Your task to perform on an android device: turn off notifications settings in the gmail app Image 0: 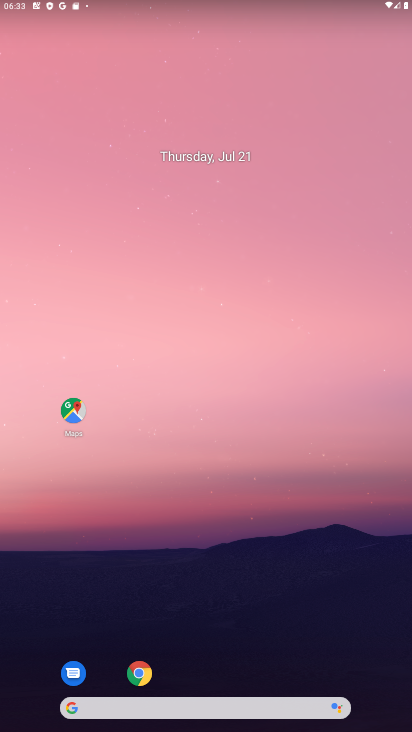
Step 0: drag from (182, 365) to (210, 33)
Your task to perform on an android device: turn off notifications settings in the gmail app Image 1: 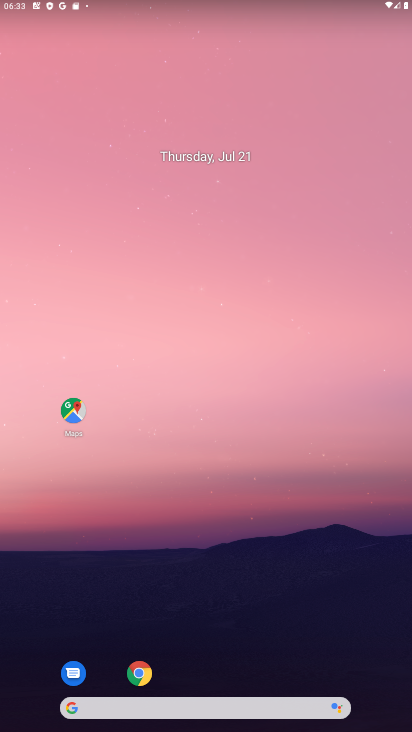
Step 1: drag from (203, 406) to (224, 28)
Your task to perform on an android device: turn off notifications settings in the gmail app Image 2: 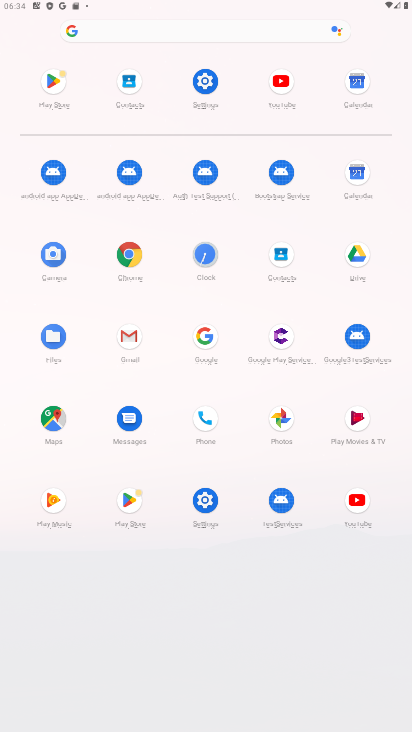
Step 2: click (126, 337)
Your task to perform on an android device: turn off notifications settings in the gmail app Image 3: 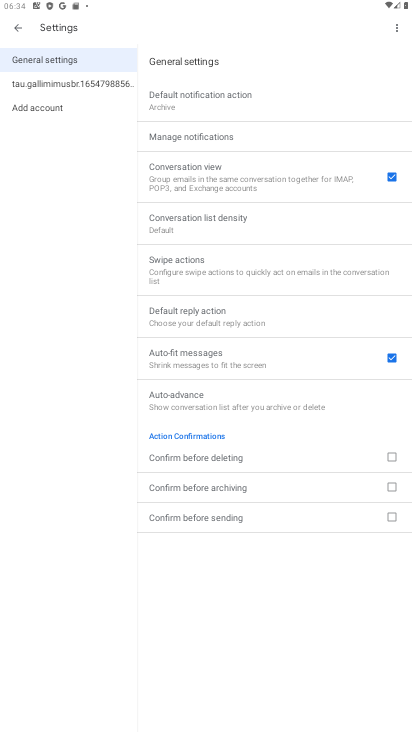
Step 3: click (88, 77)
Your task to perform on an android device: turn off notifications settings in the gmail app Image 4: 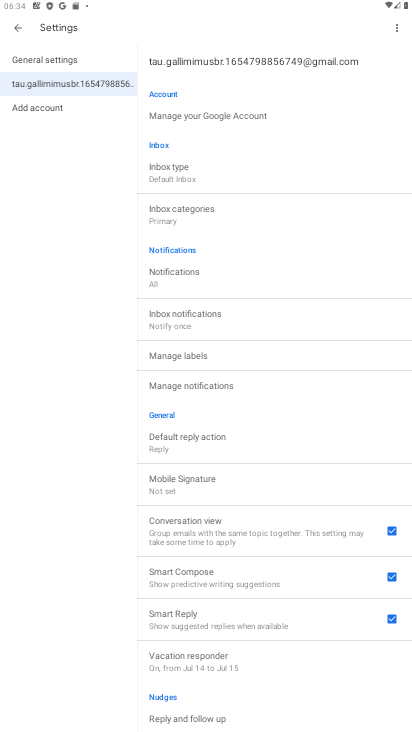
Step 4: click (199, 383)
Your task to perform on an android device: turn off notifications settings in the gmail app Image 5: 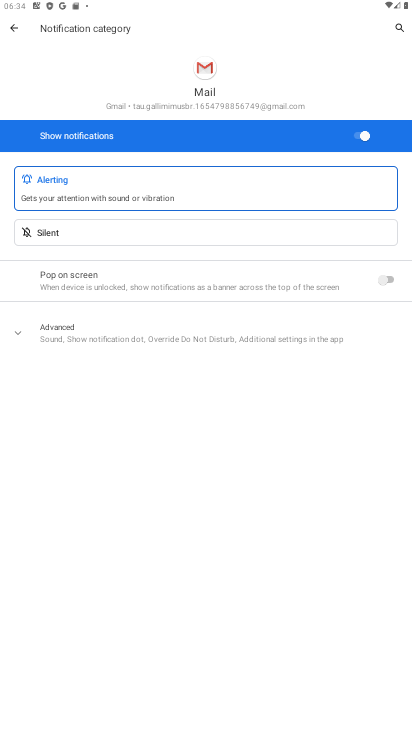
Step 5: click (355, 143)
Your task to perform on an android device: turn off notifications settings in the gmail app Image 6: 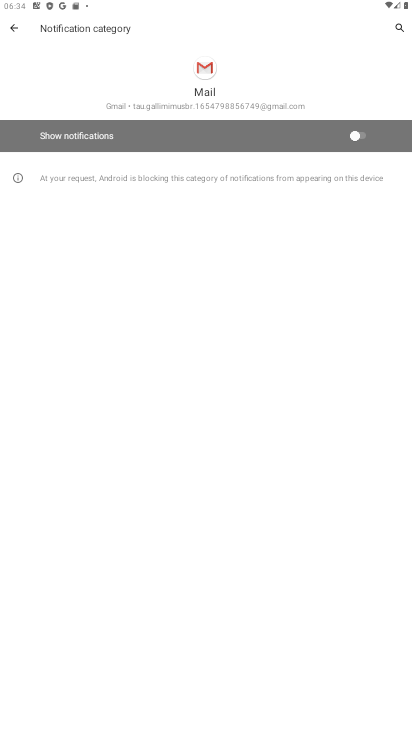
Step 6: task complete